Your task to perform on an android device: Open privacy settings Image 0: 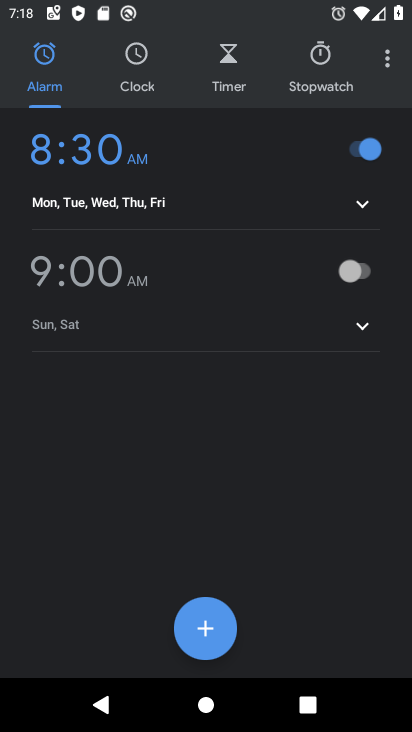
Step 0: press home button
Your task to perform on an android device: Open privacy settings Image 1: 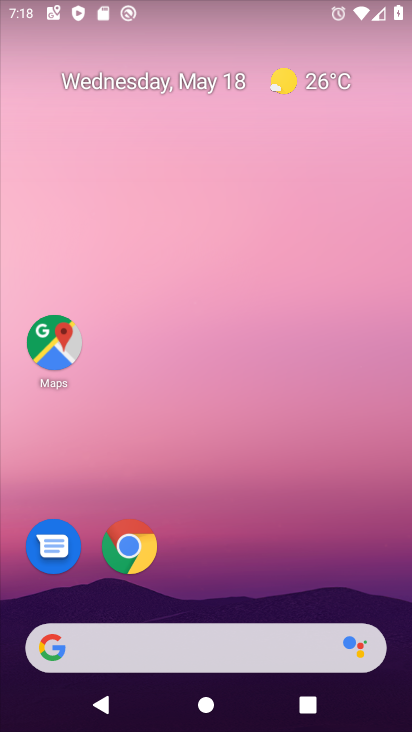
Step 1: drag from (402, 634) to (291, 3)
Your task to perform on an android device: Open privacy settings Image 2: 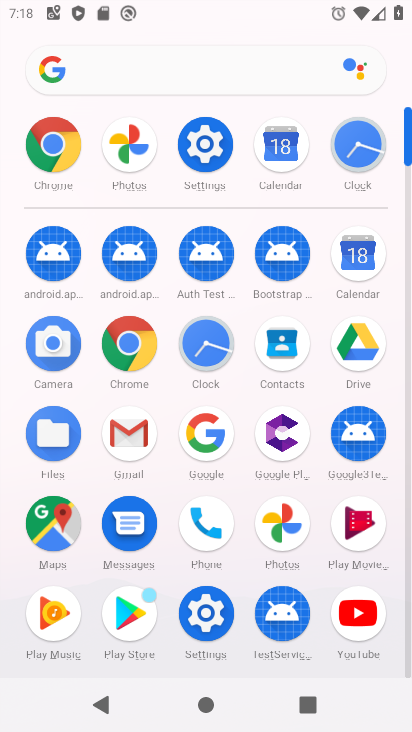
Step 2: click (216, 137)
Your task to perform on an android device: Open privacy settings Image 3: 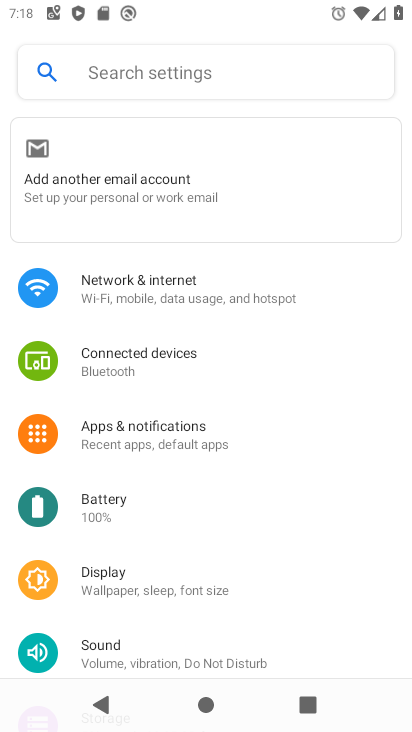
Step 3: drag from (122, 599) to (220, 162)
Your task to perform on an android device: Open privacy settings Image 4: 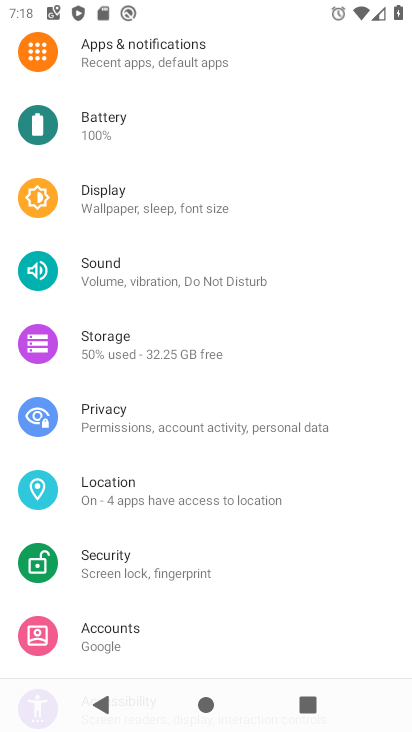
Step 4: click (92, 415)
Your task to perform on an android device: Open privacy settings Image 5: 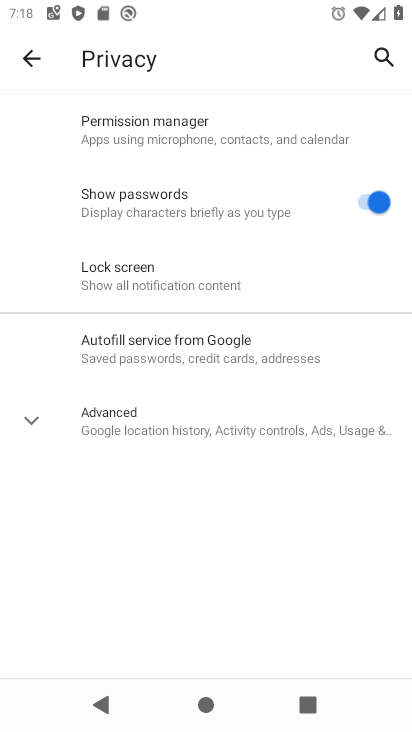
Step 5: task complete